Your task to perform on an android device: delete browsing data in the chrome app Image 0: 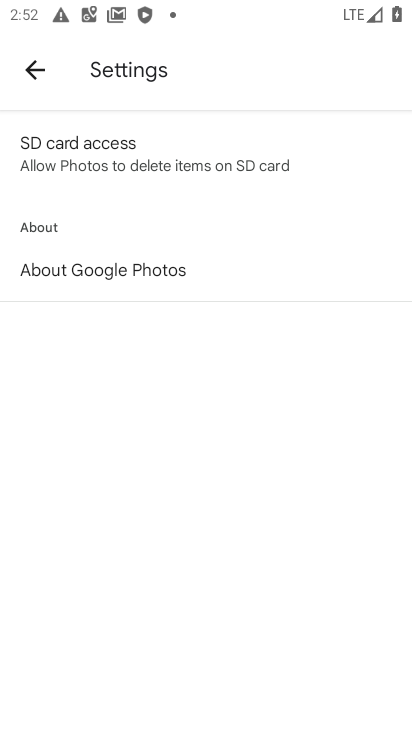
Step 0: press home button
Your task to perform on an android device: delete browsing data in the chrome app Image 1: 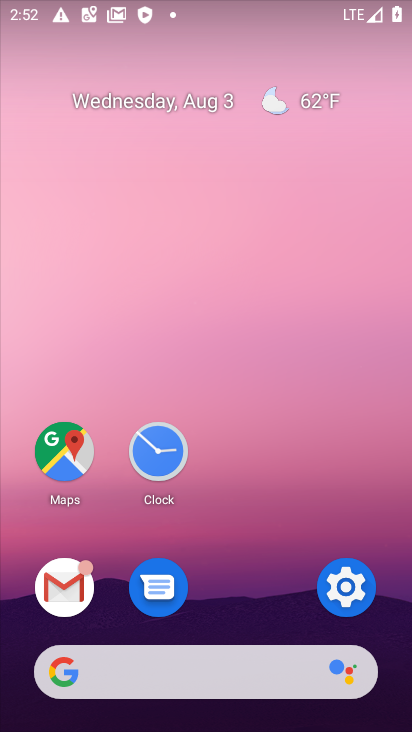
Step 1: drag from (238, 553) to (207, 152)
Your task to perform on an android device: delete browsing data in the chrome app Image 2: 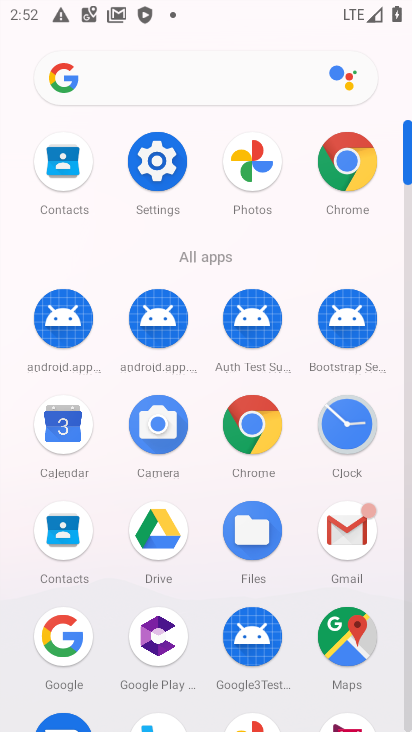
Step 2: click (346, 156)
Your task to perform on an android device: delete browsing data in the chrome app Image 3: 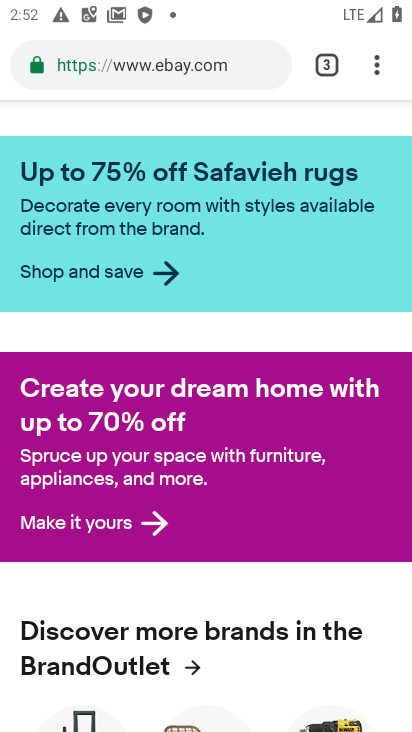
Step 3: click (373, 66)
Your task to perform on an android device: delete browsing data in the chrome app Image 4: 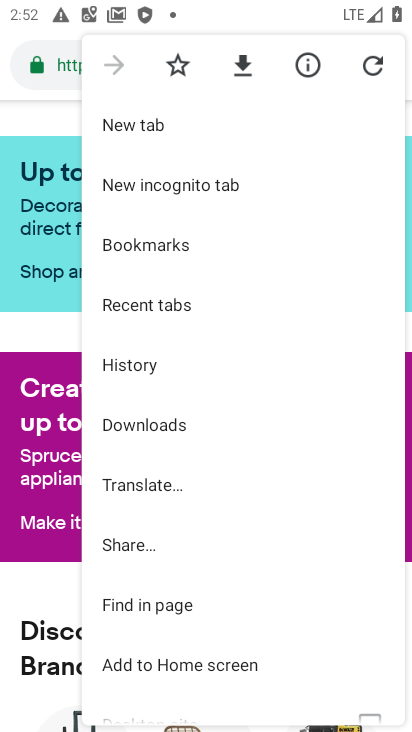
Step 4: click (144, 362)
Your task to perform on an android device: delete browsing data in the chrome app Image 5: 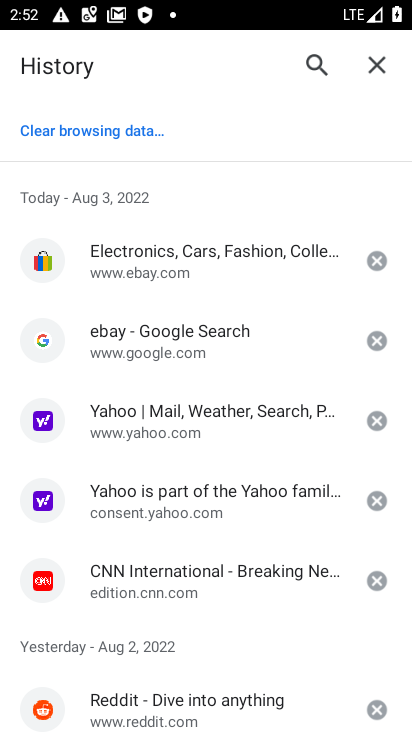
Step 5: click (88, 125)
Your task to perform on an android device: delete browsing data in the chrome app Image 6: 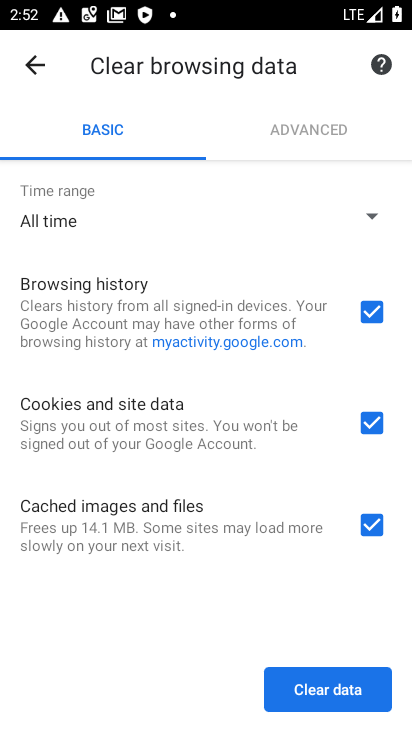
Step 6: click (319, 690)
Your task to perform on an android device: delete browsing data in the chrome app Image 7: 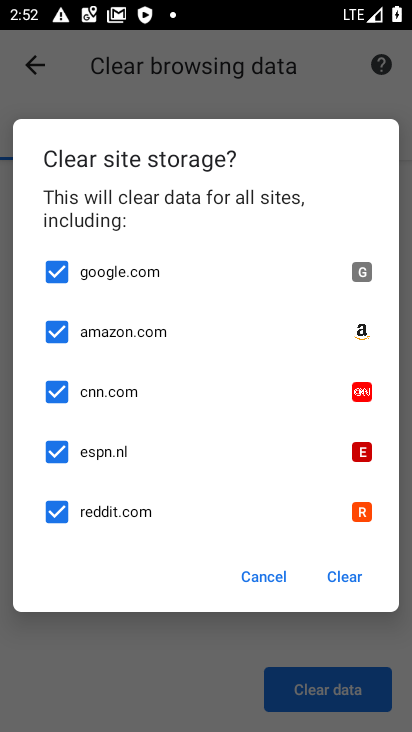
Step 7: click (339, 569)
Your task to perform on an android device: delete browsing data in the chrome app Image 8: 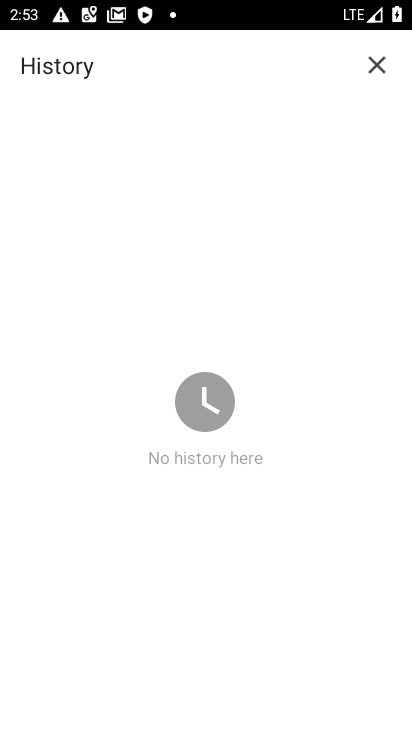
Step 8: task complete